Your task to perform on an android device: open a new tab in the chrome app Image 0: 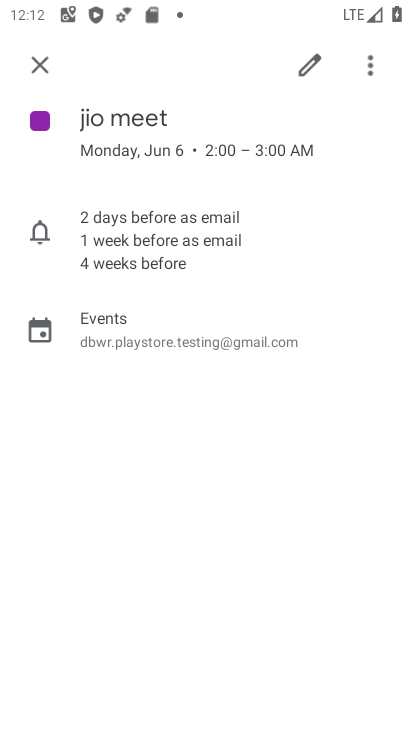
Step 0: press home button
Your task to perform on an android device: open a new tab in the chrome app Image 1: 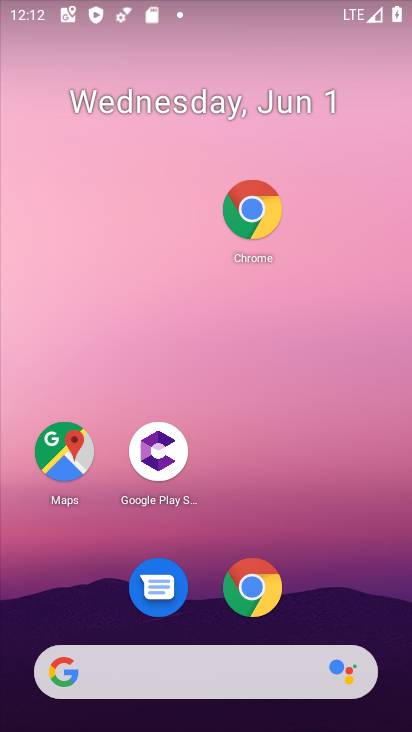
Step 1: click (252, 603)
Your task to perform on an android device: open a new tab in the chrome app Image 2: 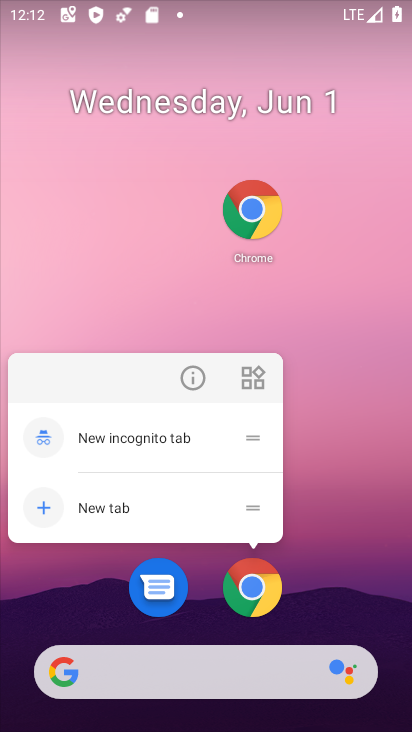
Step 2: click (143, 514)
Your task to perform on an android device: open a new tab in the chrome app Image 3: 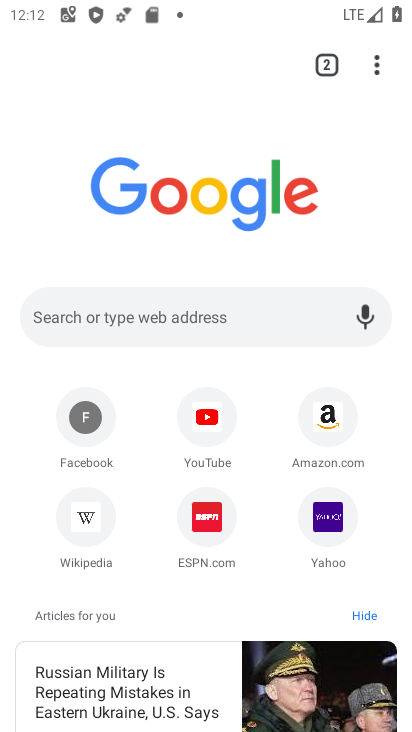
Step 3: click (83, 514)
Your task to perform on an android device: open a new tab in the chrome app Image 4: 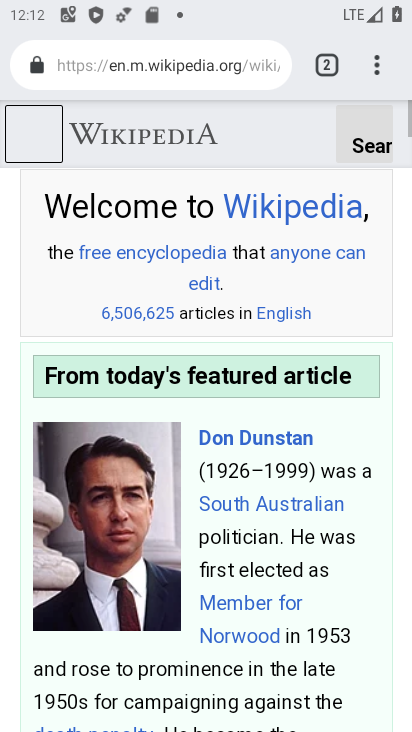
Step 4: task complete